Your task to perform on an android device: check data usage Image 0: 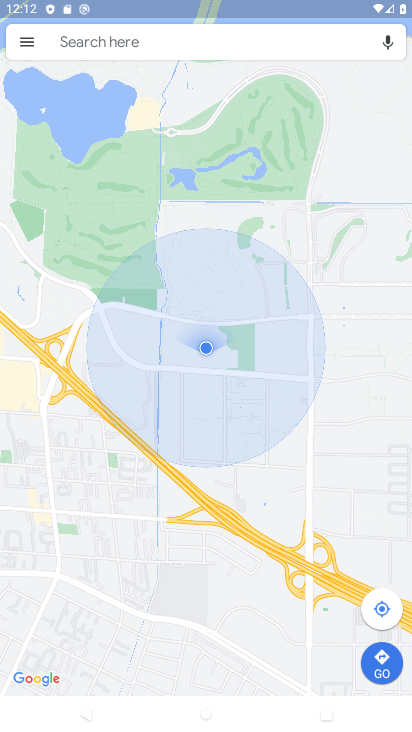
Step 0: press home button
Your task to perform on an android device: check data usage Image 1: 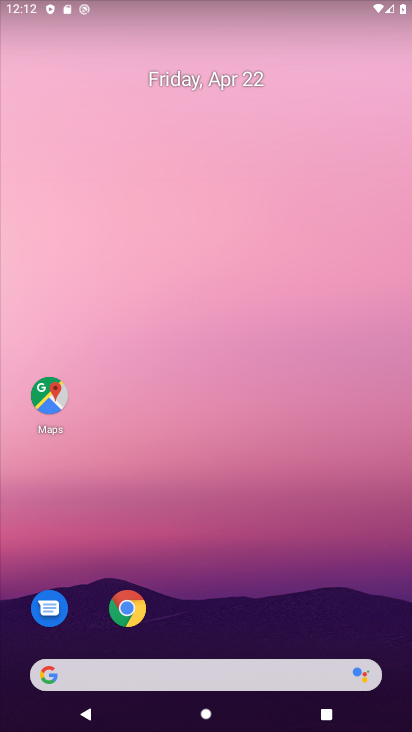
Step 1: drag from (317, 558) to (285, 44)
Your task to perform on an android device: check data usage Image 2: 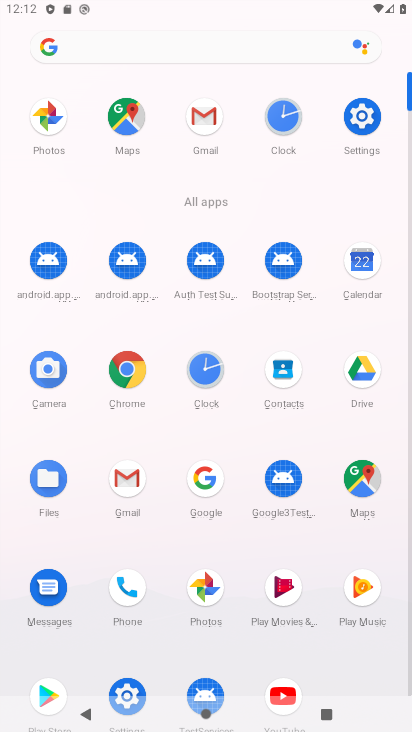
Step 2: click (360, 122)
Your task to perform on an android device: check data usage Image 3: 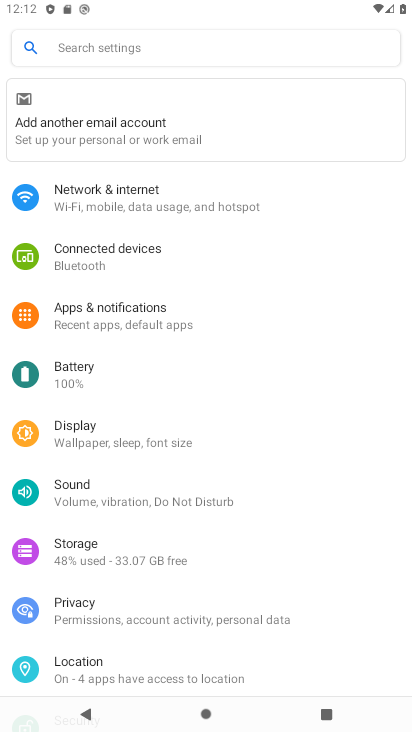
Step 3: drag from (150, 655) to (164, 294)
Your task to perform on an android device: check data usage Image 4: 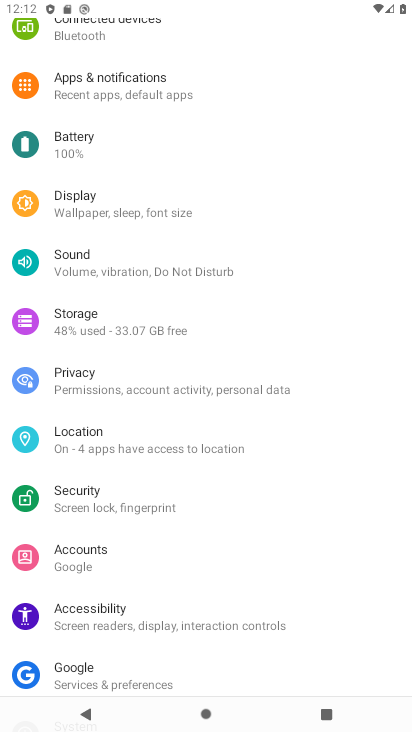
Step 4: drag from (131, 83) to (145, 389)
Your task to perform on an android device: check data usage Image 5: 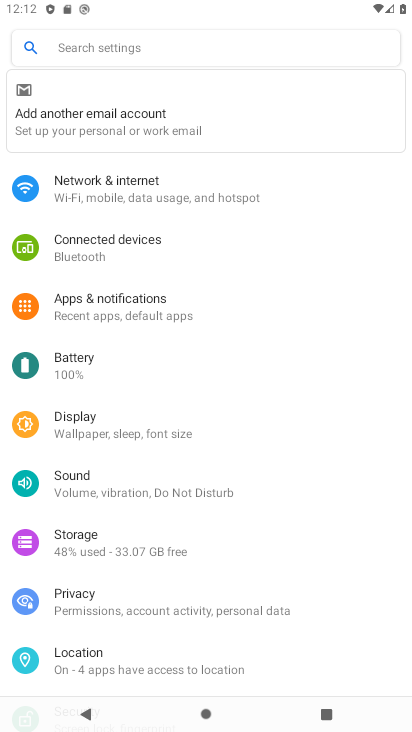
Step 5: click (133, 198)
Your task to perform on an android device: check data usage Image 6: 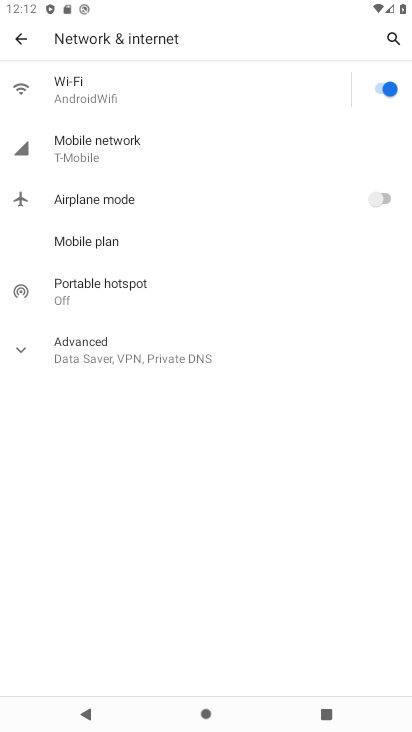
Step 6: click (107, 159)
Your task to perform on an android device: check data usage Image 7: 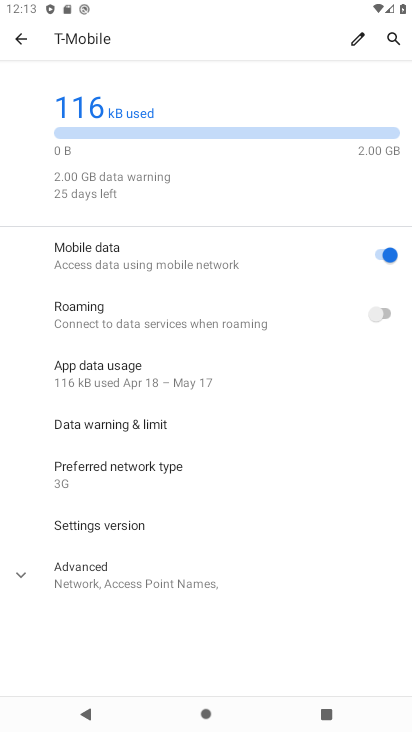
Step 7: task complete